Your task to perform on an android device: Do I have any events this weekend? Image 0: 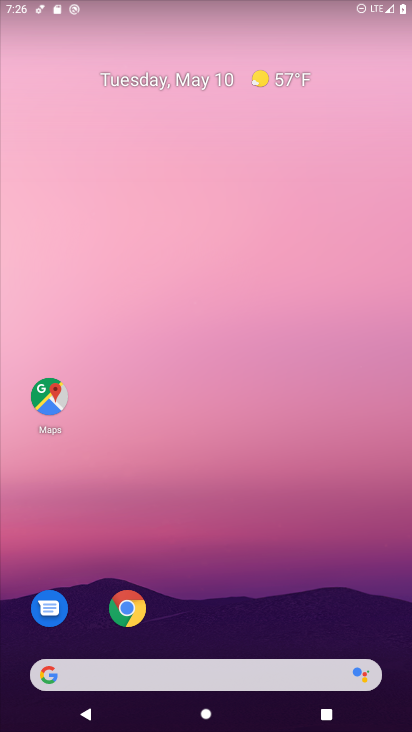
Step 0: drag from (322, 603) to (288, 87)
Your task to perform on an android device: Do I have any events this weekend? Image 1: 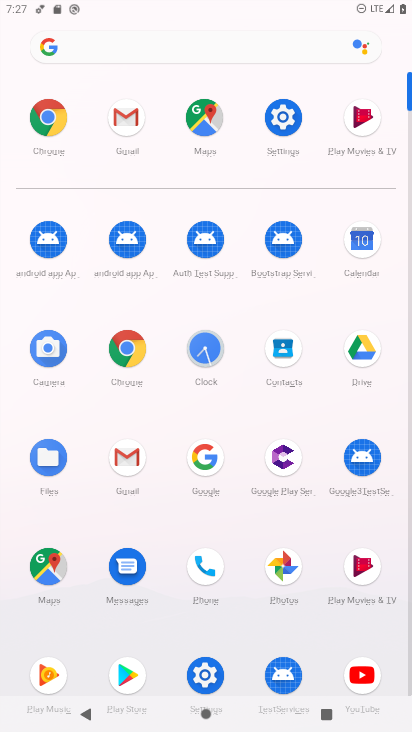
Step 1: click (356, 237)
Your task to perform on an android device: Do I have any events this weekend? Image 2: 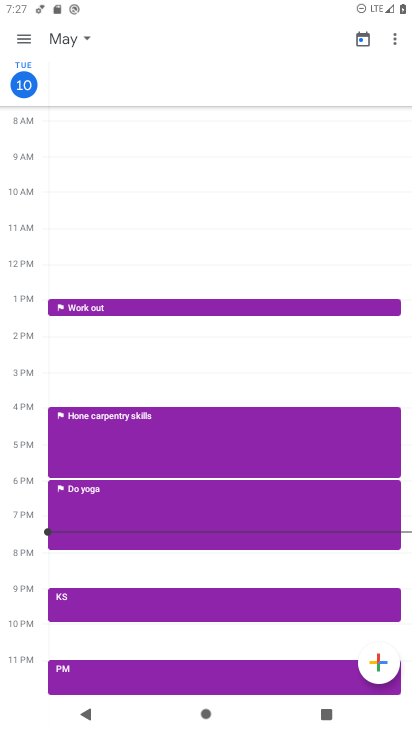
Step 2: click (23, 42)
Your task to perform on an android device: Do I have any events this weekend? Image 3: 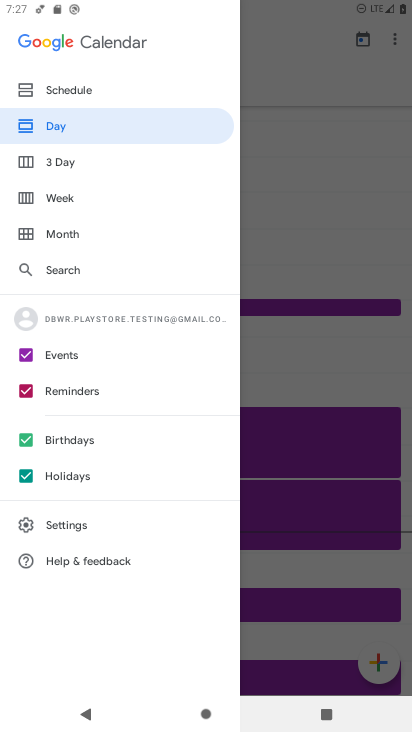
Step 3: click (82, 81)
Your task to perform on an android device: Do I have any events this weekend? Image 4: 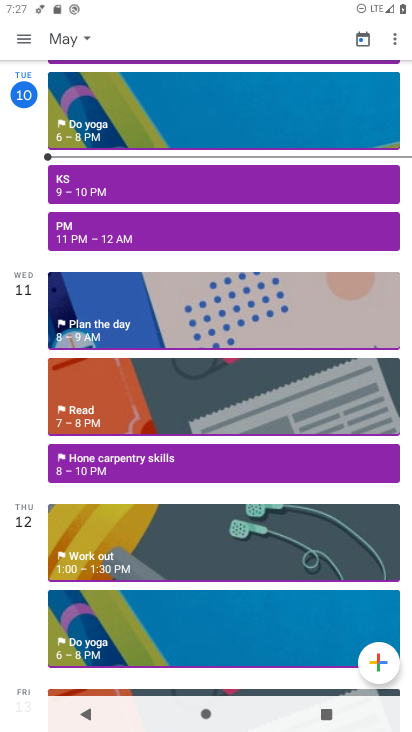
Step 4: task complete